Your task to perform on an android device: turn on the 12-hour format for clock Image 0: 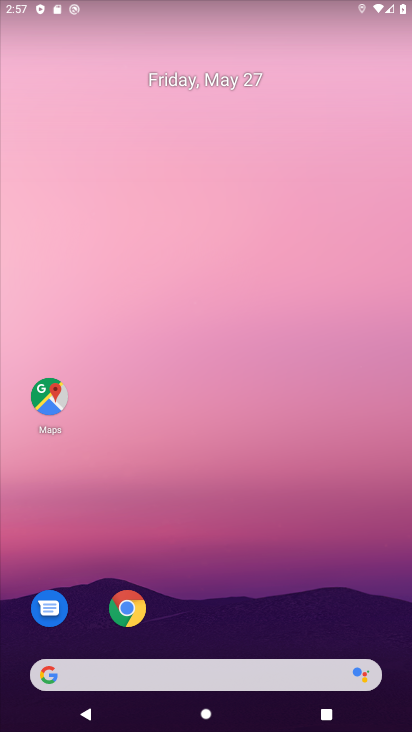
Step 0: drag from (181, 641) to (285, 205)
Your task to perform on an android device: turn on the 12-hour format for clock Image 1: 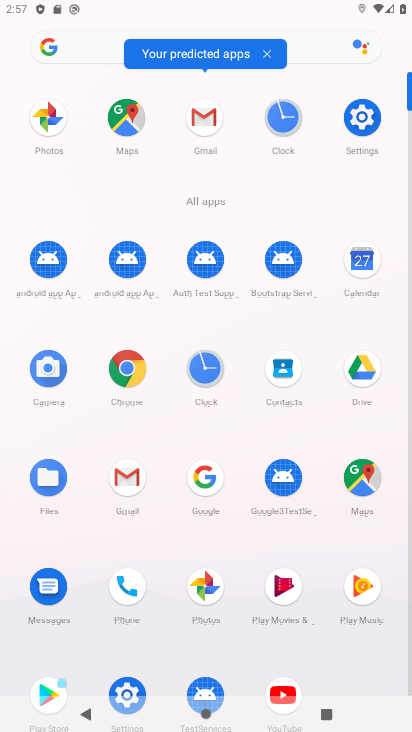
Step 1: click (215, 357)
Your task to perform on an android device: turn on the 12-hour format for clock Image 2: 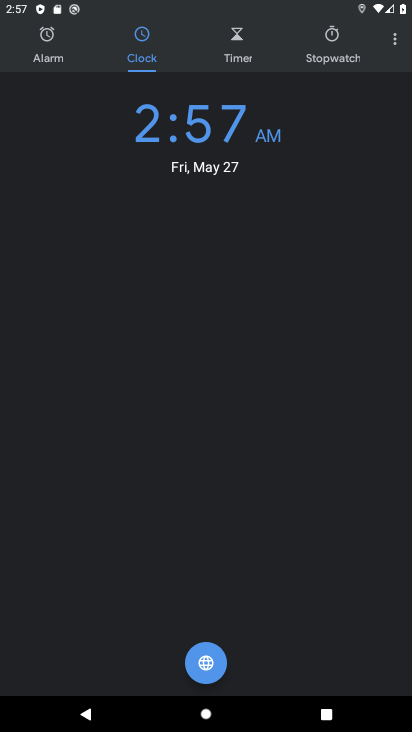
Step 2: click (401, 49)
Your task to perform on an android device: turn on the 12-hour format for clock Image 3: 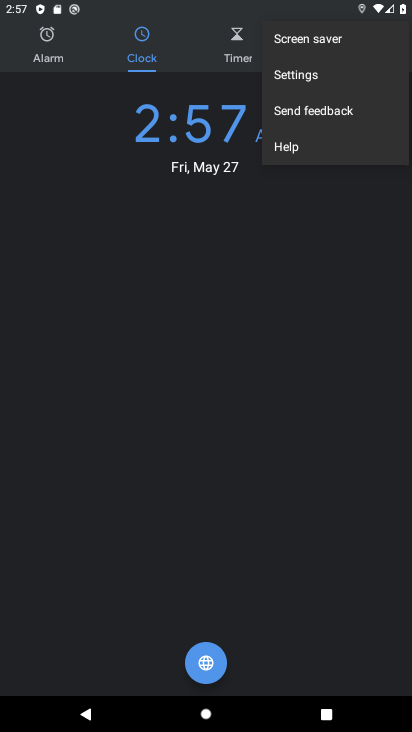
Step 3: click (340, 74)
Your task to perform on an android device: turn on the 12-hour format for clock Image 4: 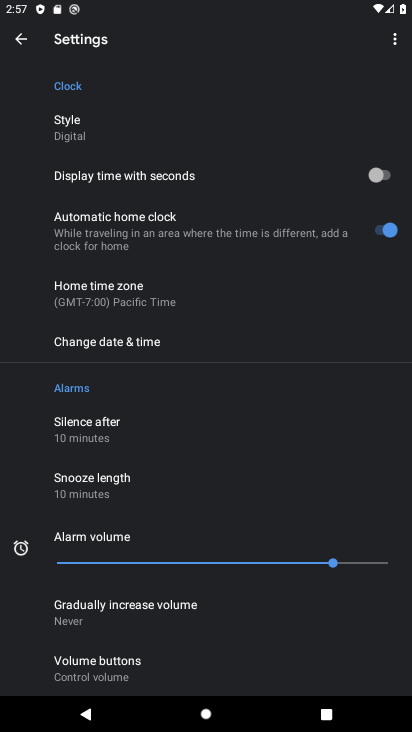
Step 4: click (191, 345)
Your task to perform on an android device: turn on the 12-hour format for clock Image 5: 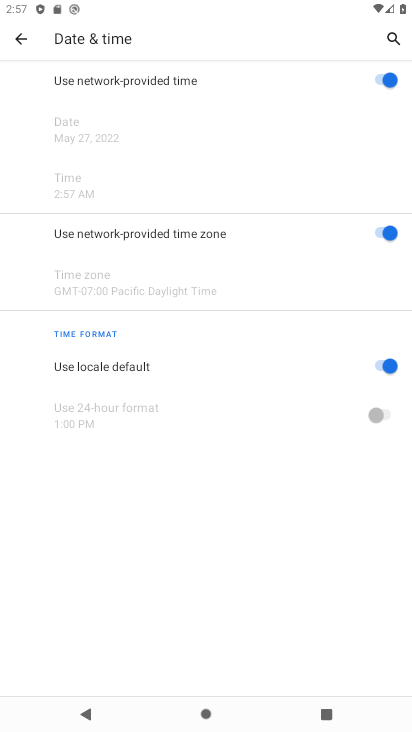
Step 5: task complete